Your task to perform on an android device: turn on translation in the chrome app Image 0: 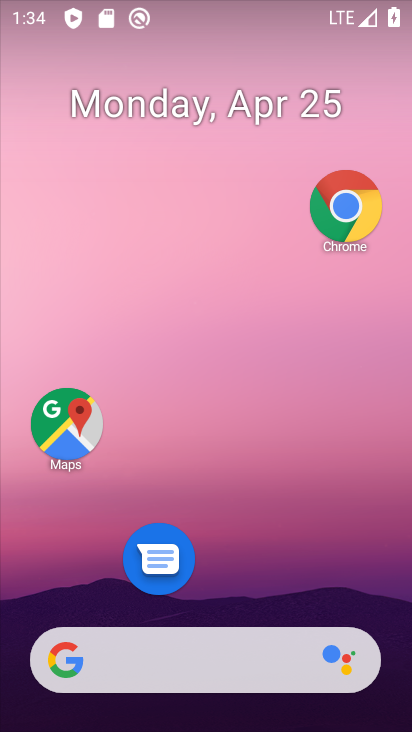
Step 0: click (251, 85)
Your task to perform on an android device: turn on translation in the chrome app Image 1: 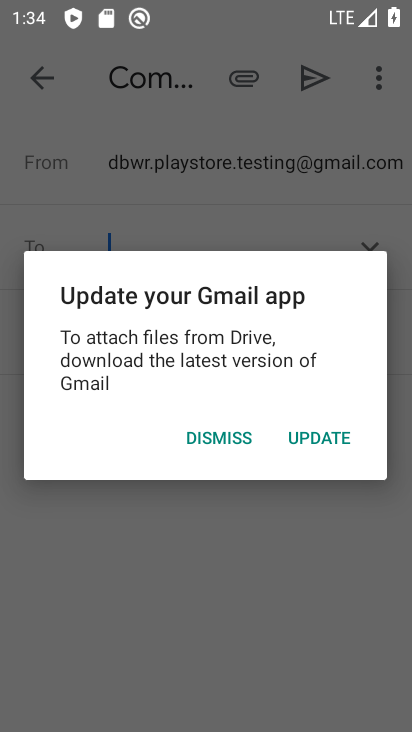
Step 1: press back button
Your task to perform on an android device: turn on translation in the chrome app Image 2: 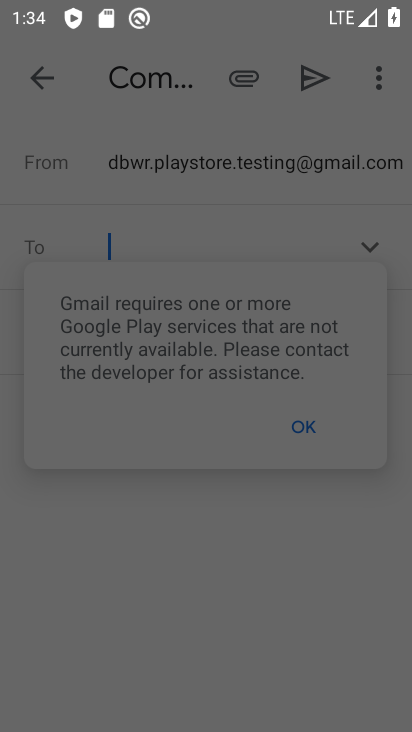
Step 2: press back button
Your task to perform on an android device: turn on translation in the chrome app Image 3: 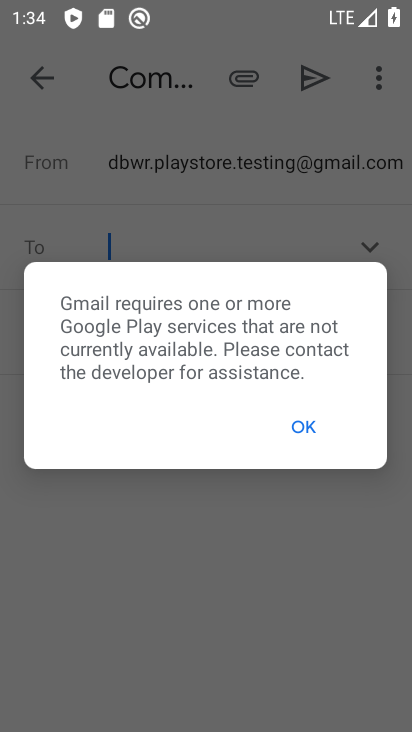
Step 3: press back button
Your task to perform on an android device: turn on translation in the chrome app Image 4: 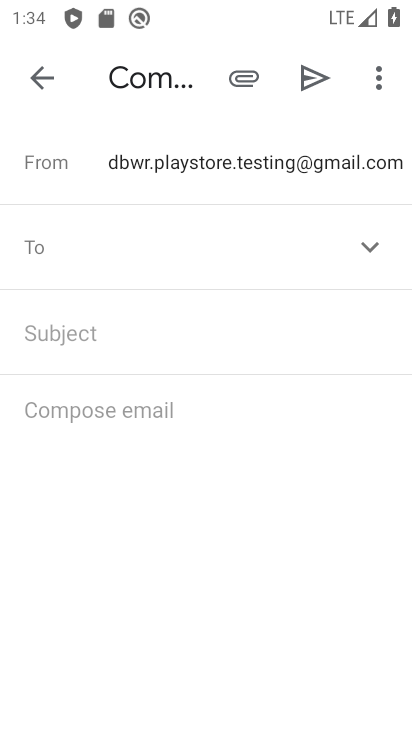
Step 4: press home button
Your task to perform on an android device: turn on translation in the chrome app Image 5: 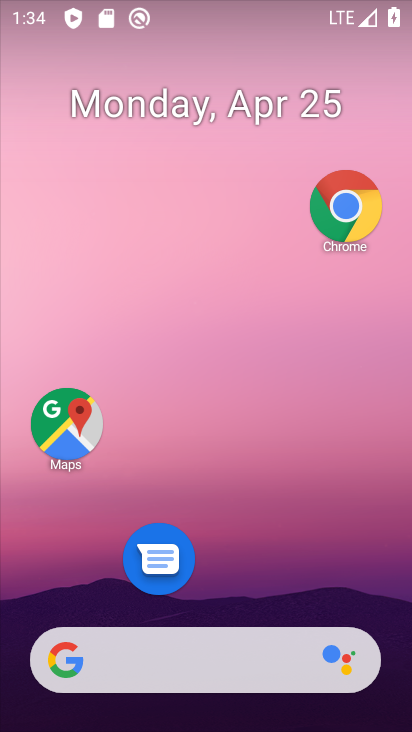
Step 5: click (363, 205)
Your task to perform on an android device: turn on translation in the chrome app Image 6: 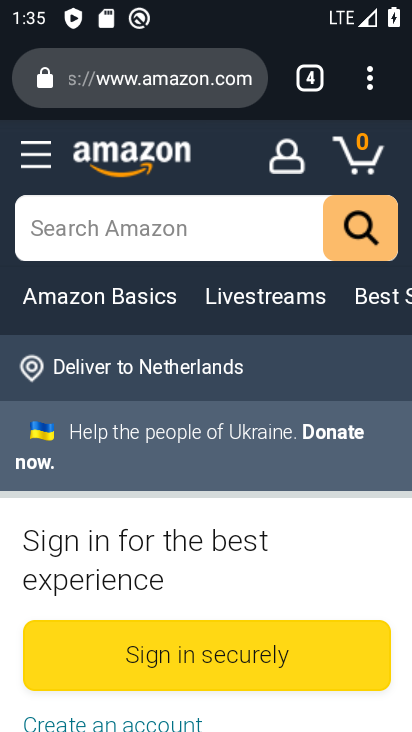
Step 6: drag from (368, 68) to (162, 613)
Your task to perform on an android device: turn on translation in the chrome app Image 7: 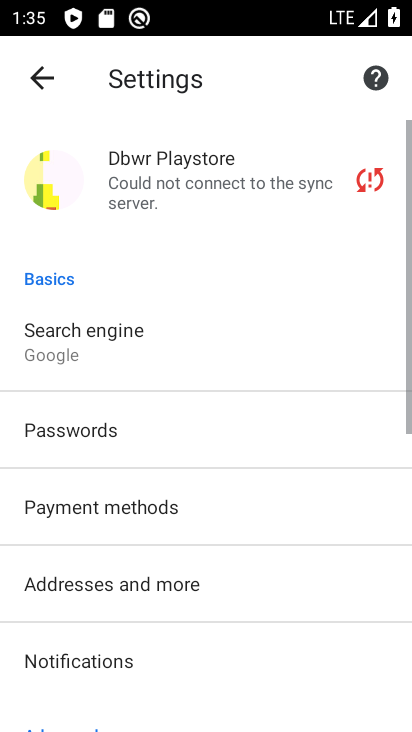
Step 7: drag from (154, 600) to (297, 79)
Your task to perform on an android device: turn on translation in the chrome app Image 8: 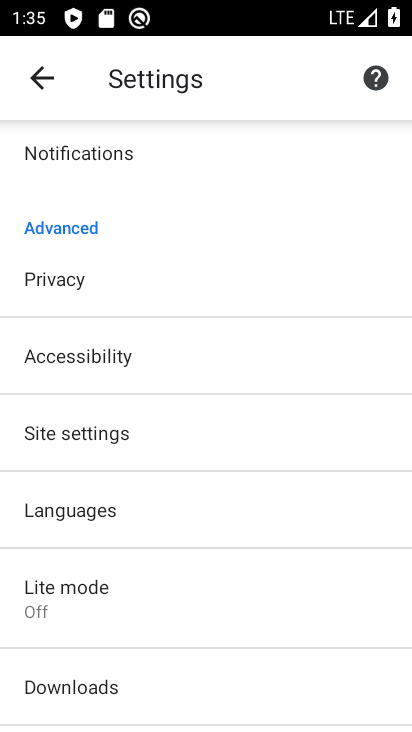
Step 8: click (108, 511)
Your task to perform on an android device: turn on translation in the chrome app Image 9: 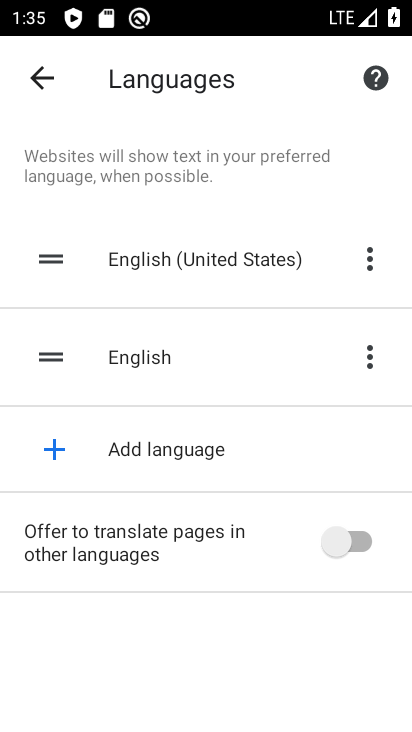
Step 9: click (356, 533)
Your task to perform on an android device: turn on translation in the chrome app Image 10: 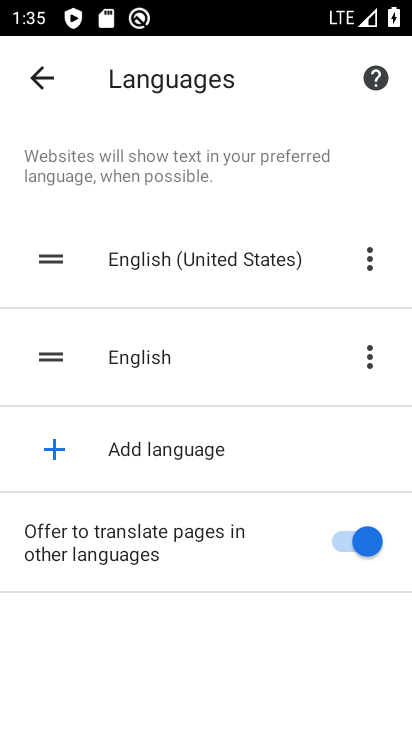
Step 10: task complete